Your task to perform on an android device: Go to network settings Image 0: 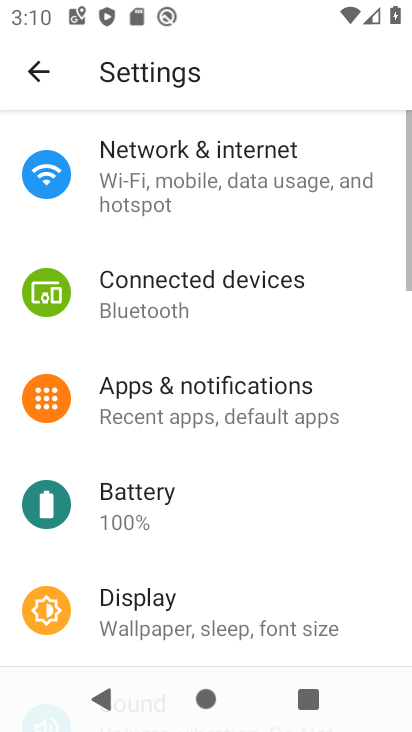
Step 0: click (149, 198)
Your task to perform on an android device: Go to network settings Image 1: 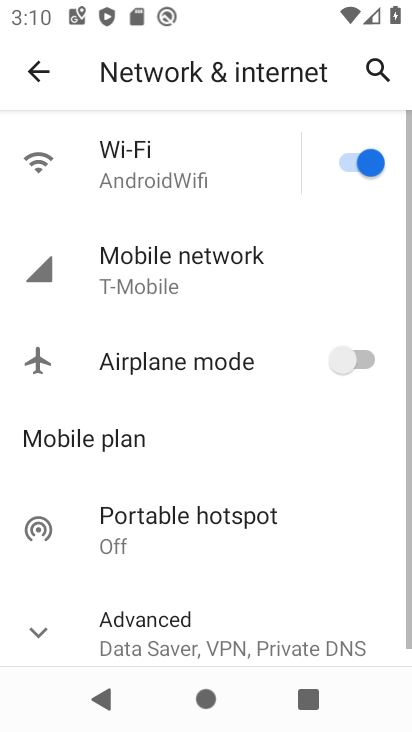
Step 1: click (214, 278)
Your task to perform on an android device: Go to network settings Image 2: 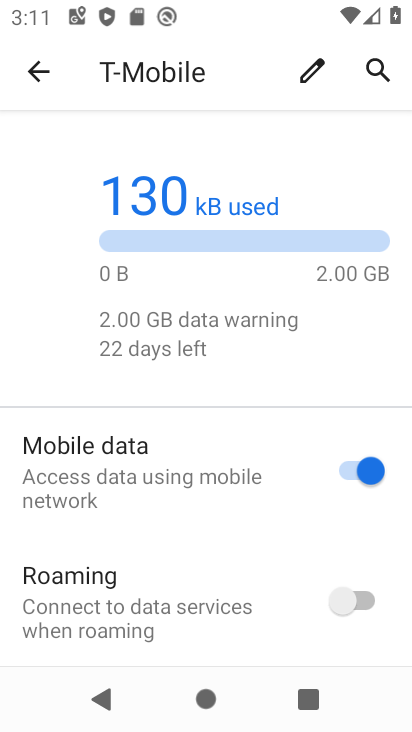
Step 2: task complete